Your task to perform on an android device: refresh tabs in the chrome app Image 0: 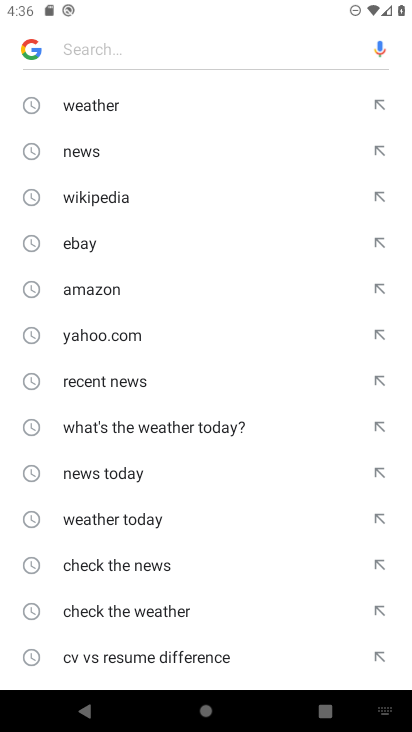
Step 0: press home button
Your task to perform on an android device: refresh tabs in the chrome app Image 1: 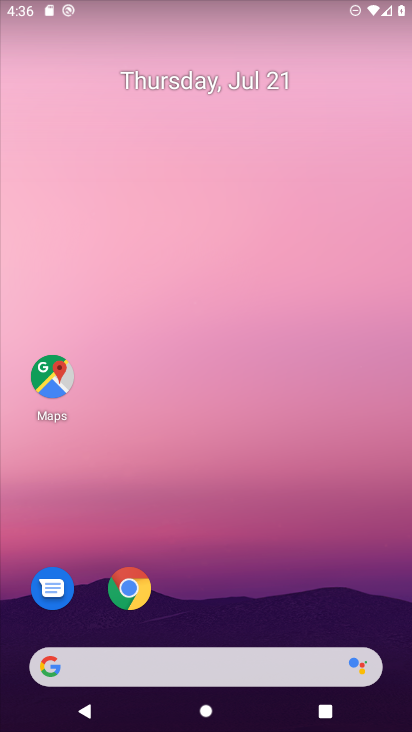
Step 1: click (137, 593)
Your task to perform on an android device: refresh tabs in the chrome app Image 2: 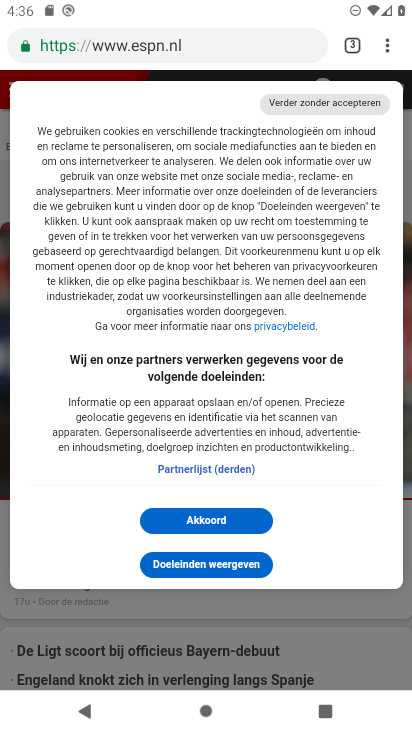
Step 2: click (389, 46)
Your task to perform on an android device: refresh tabs in the chrome app Image 3: 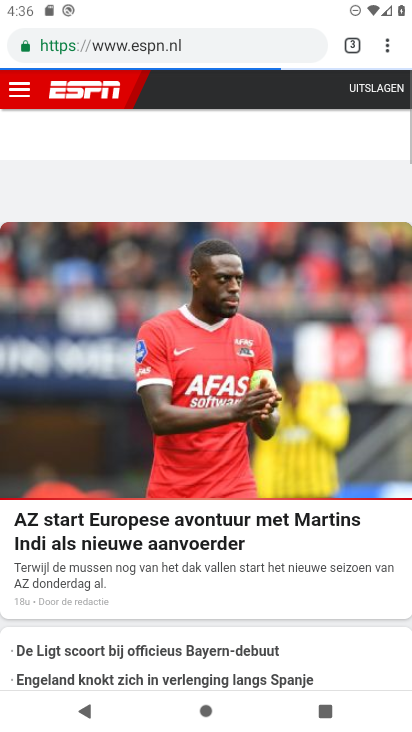
Step 3: click (394, 51)
Your task to perform on an android device: refresh tabs in the chrome app Image 4: 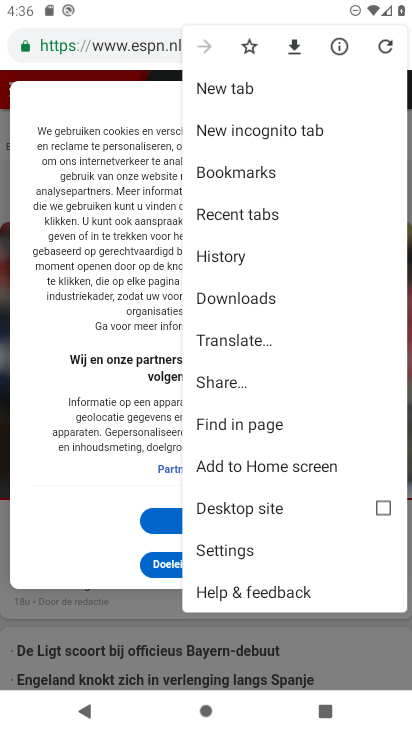
Step 4: click (388, 48)
Your task to perform on an android device: refresh tabs in the chrome app Image 5: 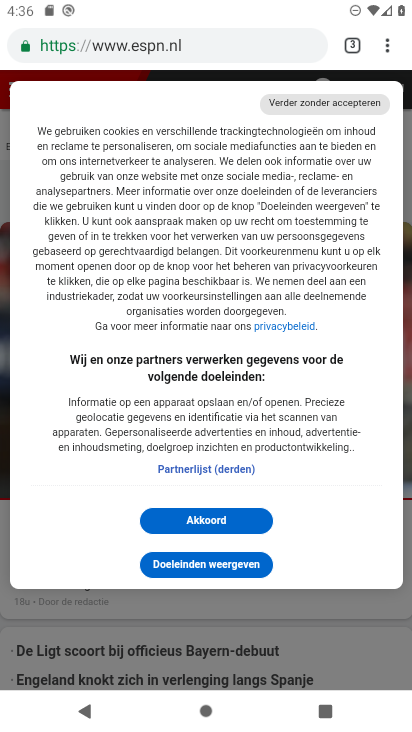
Step 5: task complete